Your task to perform on an android device: Check the news Image 0: 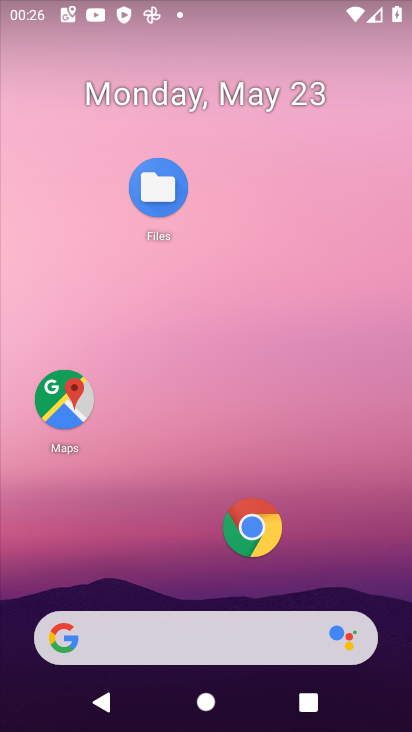
Step 0: drag from (6, 282) to (396, 283)
Your task to perform on an android device: Check the news Image 1: 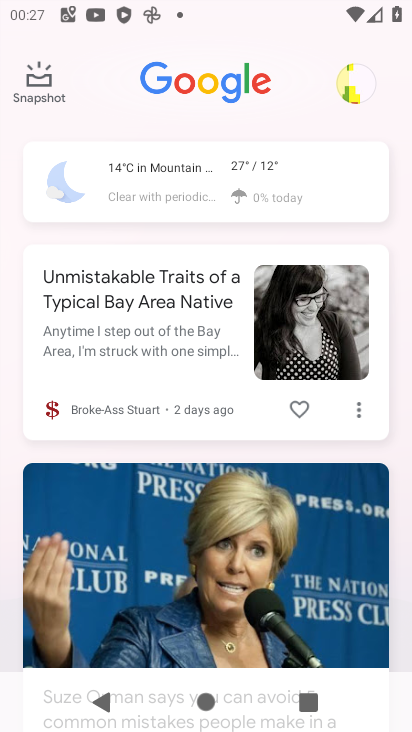
Step 1: task complete